Your task to perform on an android device: turn on translation in the chrome app Image 0: 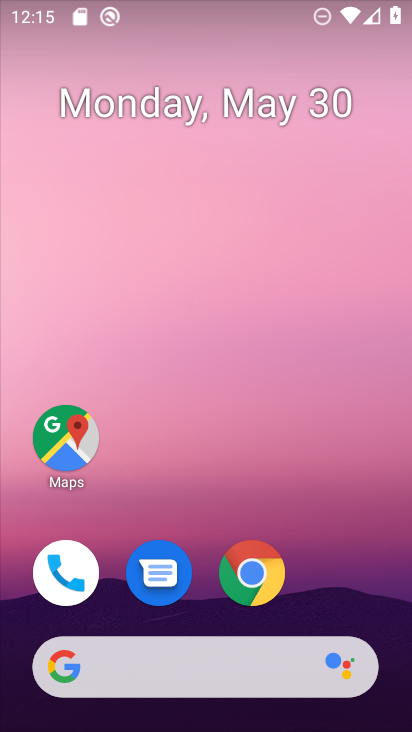
Step 0: press home button
Your task to perform on an android device: turn on translation in the chrome app Image 1: 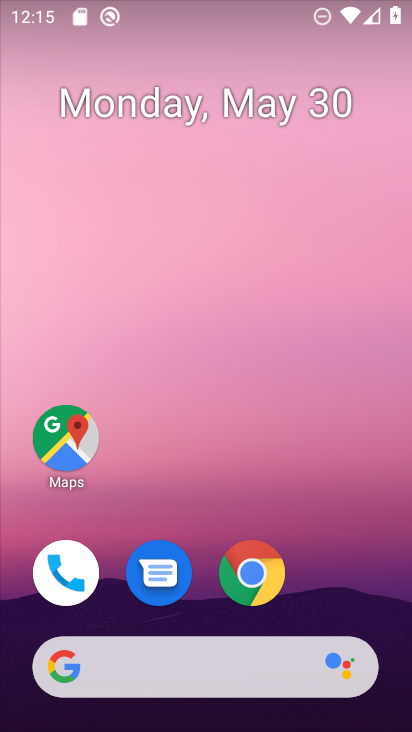
Step 1: click (250, 580)
Your task to perform on an android device: turn on translation in the chrome app Image 2: 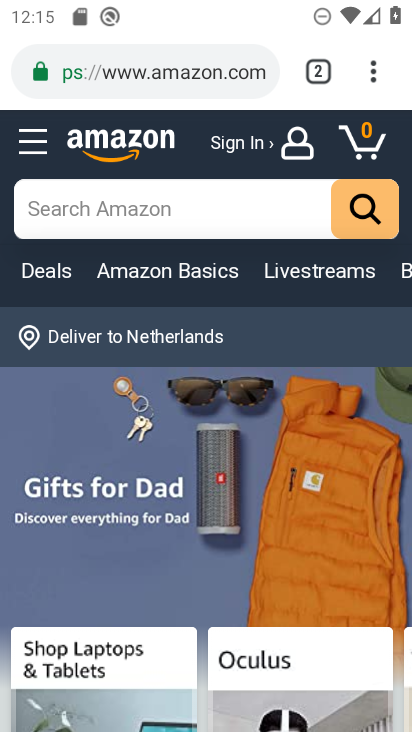
Step 2: drag from (377, 83) to (142, 576)
Your task to perform on an android device: turn on translation in the chrome app Image 3: 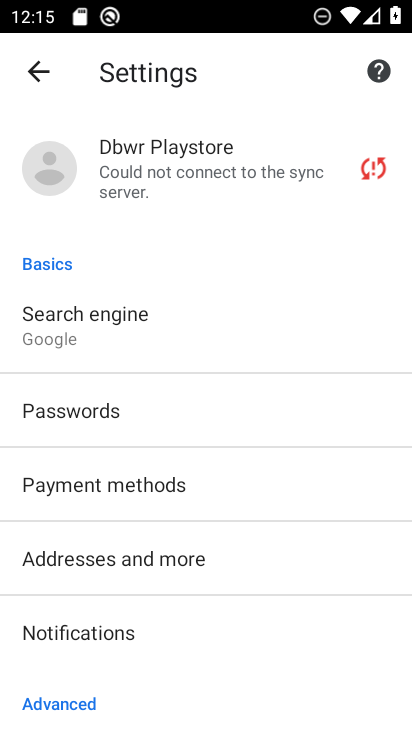
Step 3: drag from (237, 667) to (193, 158)
Your task to perform on an android device: turn on translation in the chrome app Image 4: 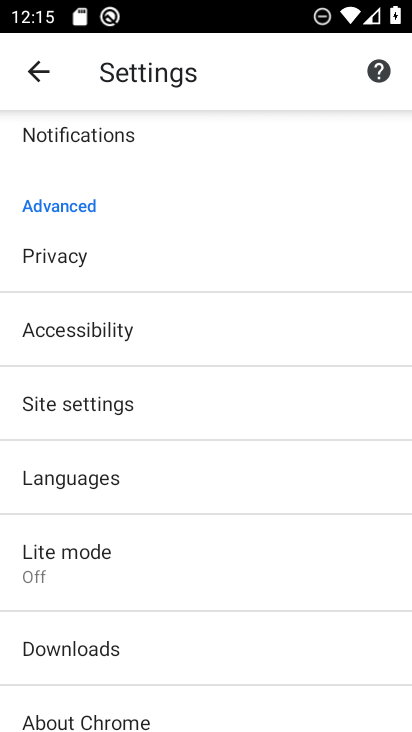
Step 4: click (76, 479)
Your task to perform on an android device: turn on translation in the chrome app Image 5: 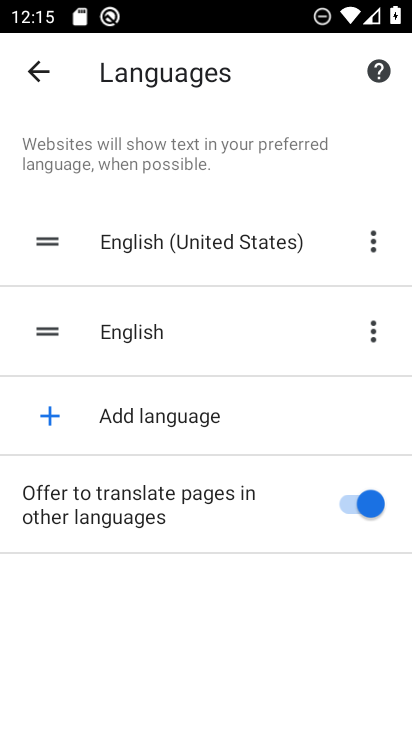
Step 5: task complete